Your task to perform on an android device: turn off priority inbox in the gmail app Image 0: 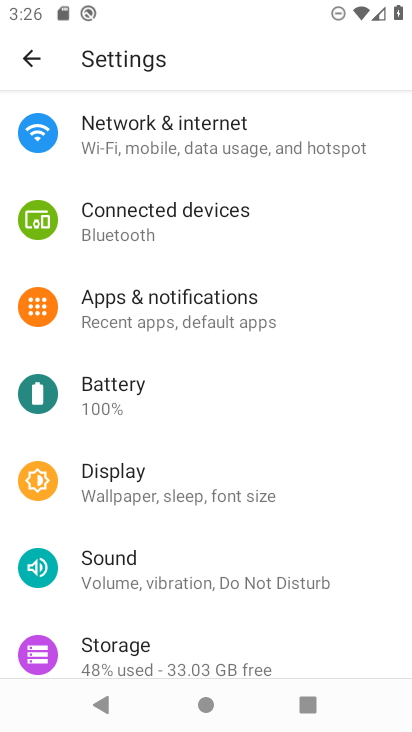
Step 0: press home button
Your task to perform on an android device: turn off priority inbox in the gmail app Image 1: 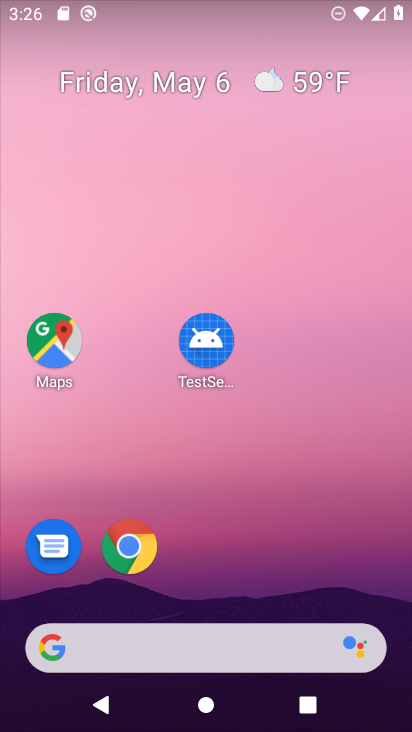
Step 1: drag from (225, 618) to (290, 355)
Your task to perform on an android device: turn off priority inbox in the gmail app Image 2: 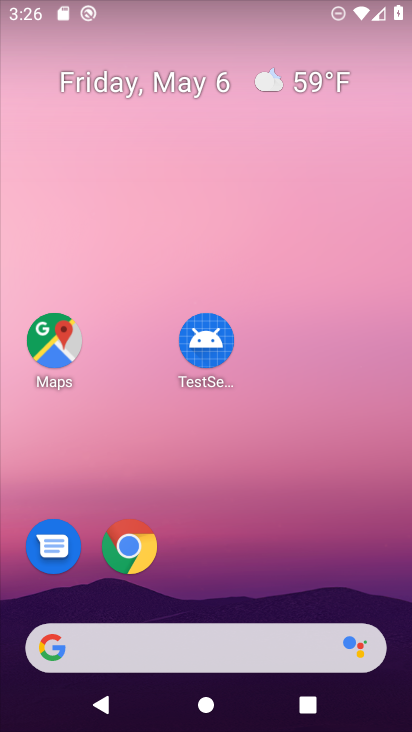
Step 2: drag from (248, 622) to (252, 202)
Your task to perform on an android device: turn off priority inbox in the gmail app Image 3: 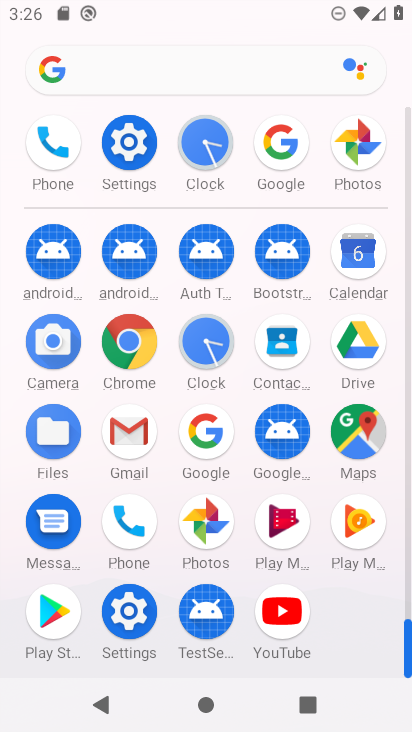
Step 3: click (141, 432)
Your task to perform on an android device: turn off priority inbox in the gmail app Image 4: 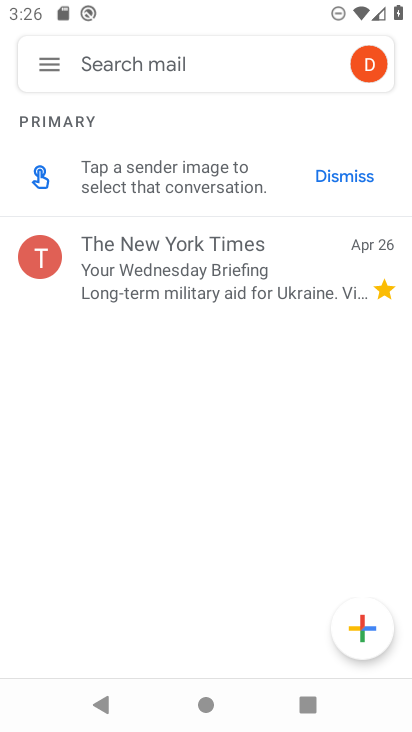
Step 4: click (54, 64)
Your task to perform on an android device: turn off priority inbox in the gmail app Image 5: 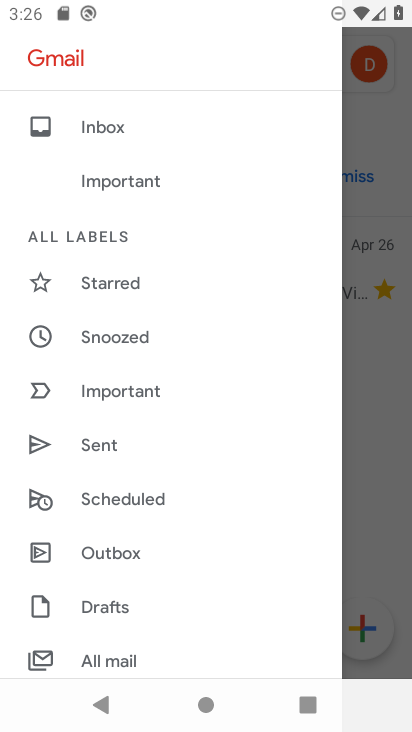
Step 5: drag from (173, 619) to (213, 265)
Your task to perform on an android device: turn off priority inbox in the gmail app Image 6: 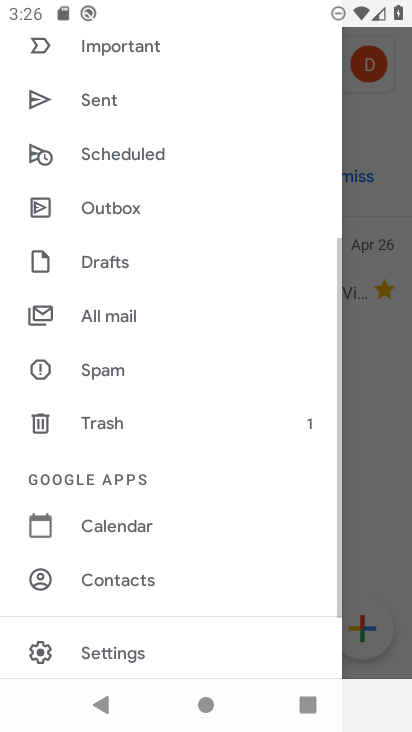
Step 6: drag from (137, 669) to (193, 408)
Your task to perform on an android device: turn off priority inbox in the gmail app Image 7: 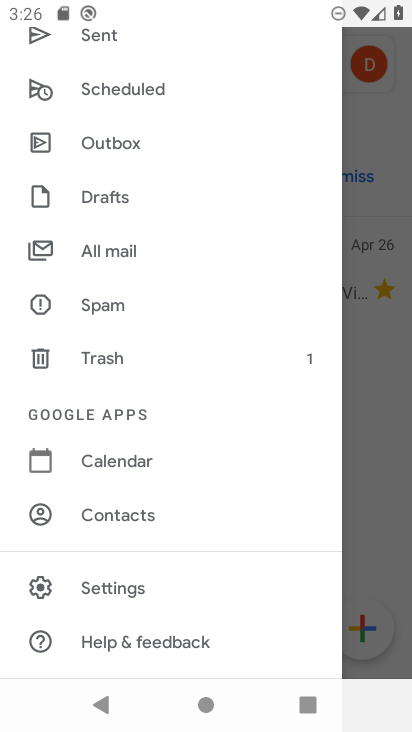
Step 7: click (95, 595)
Your task to perform on an android device: turn off priority inbox in the gmail app Image 8: 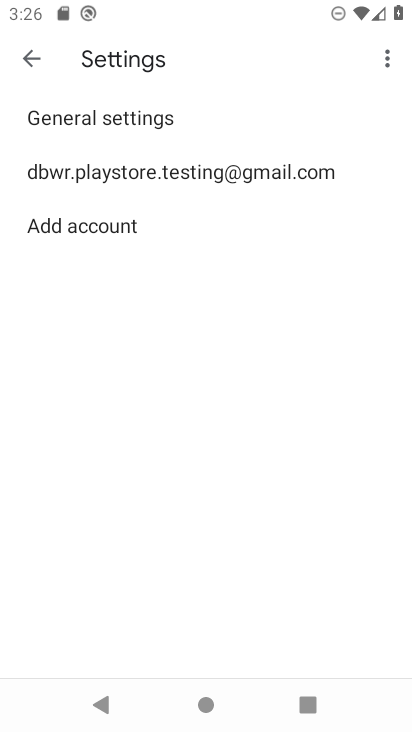
Step 8: click (154, 169)
Your task to perform on an android device: turn off priority inbox in the gmail app Image 9: 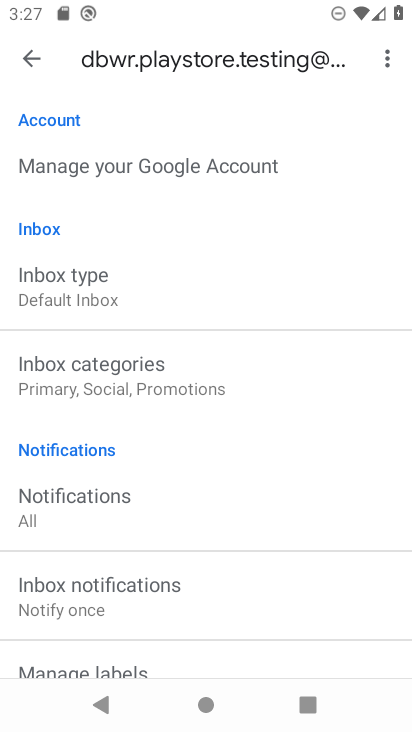
Step 9: click (89, 297)
Your task to perform on an android device: turn off priority inbox in the gmail app Image 10: 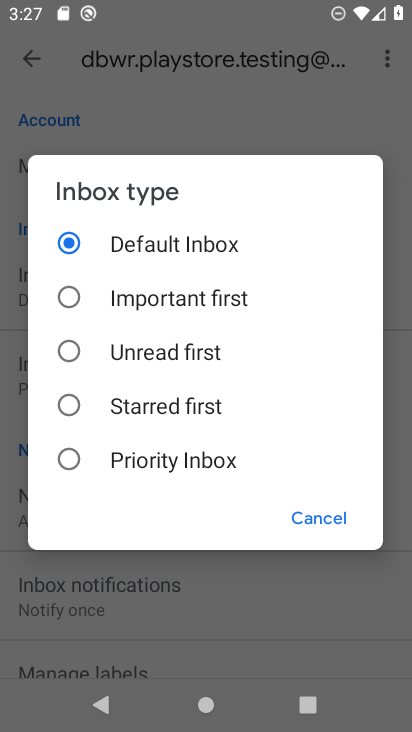
Step 10: click (320, 525)
Your task to perform on an android device: turn off priority inbox in the gmail app Image 11: 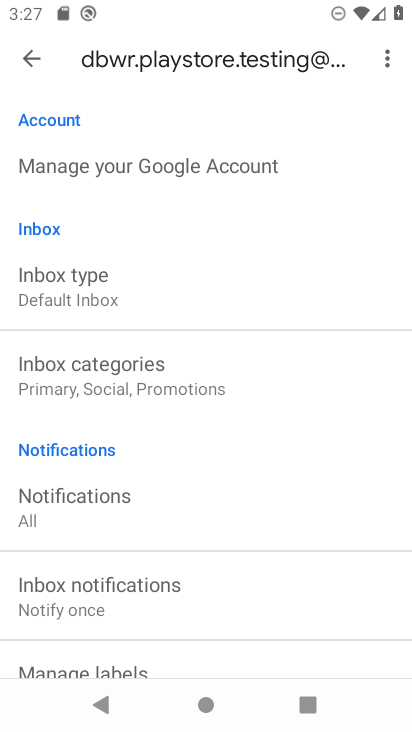
Step 11: task complete